Your task to perform on an android device: Who is the president of the United States? Image 0: 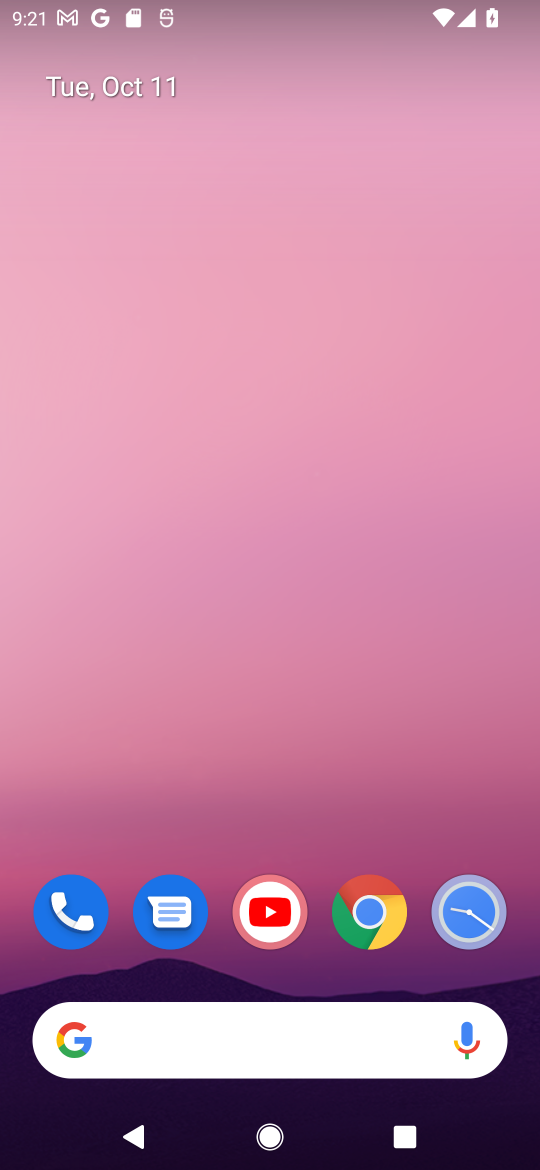
Step 0: click (370, 912)
Your task to perform on an android device: Who is the president of the United States? Image 1: 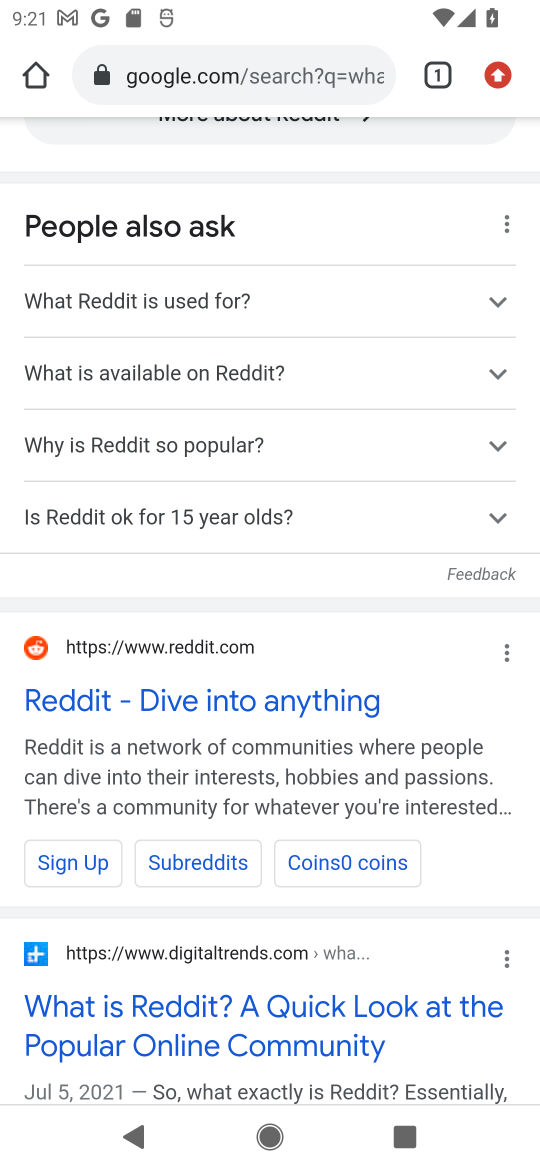
Step 1: click (227, 57)
Your task to perform on an android device: Who is the president of the United States? Image 2: 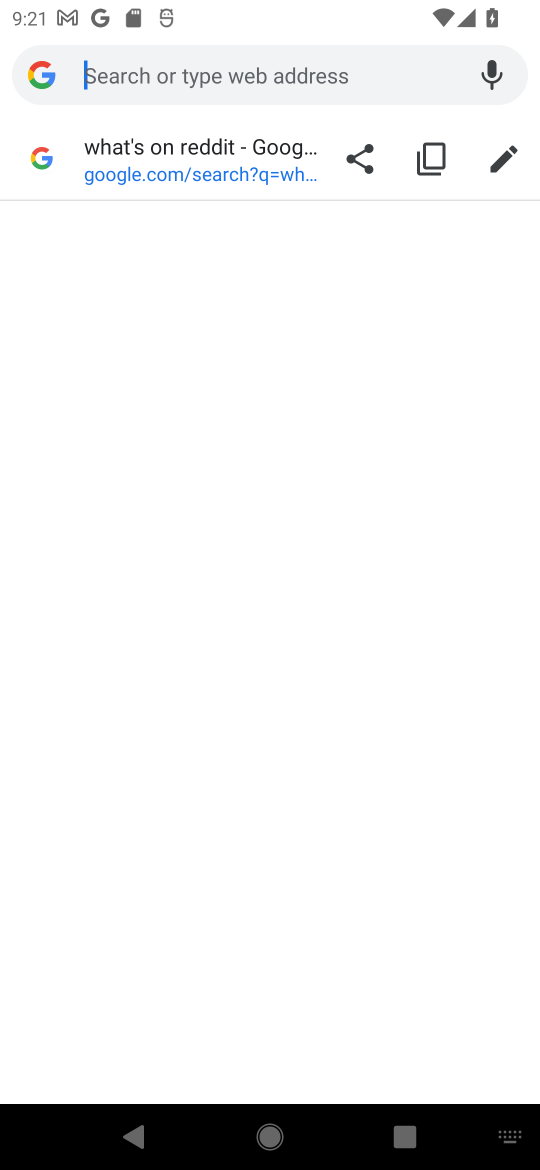
Step 2: type "president of USA"
Your task to perform on an android device: Who is the president of the United States? Image 3: 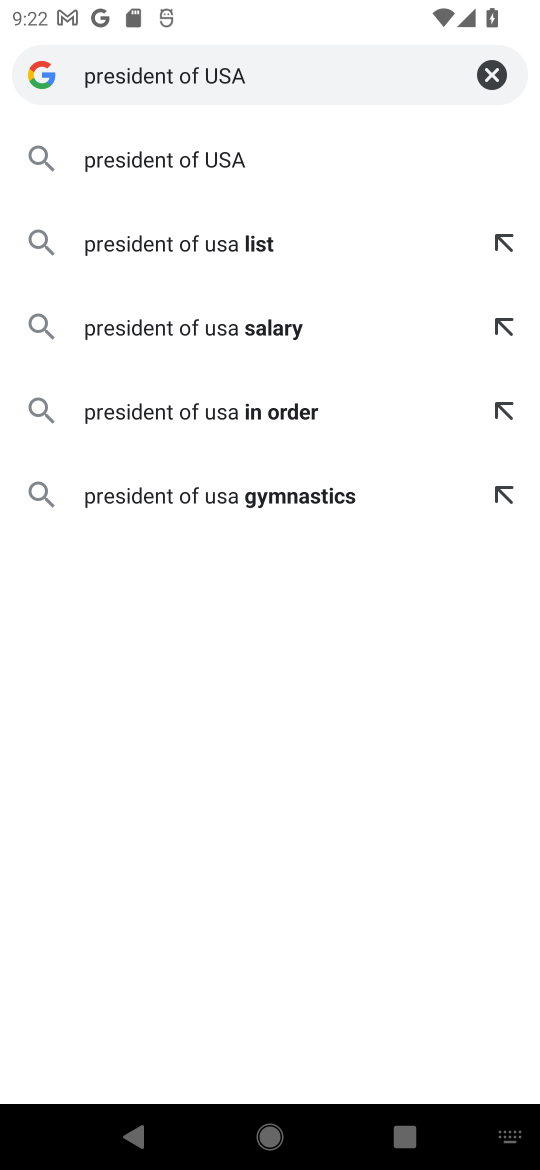
Step 3: click (181, 158)
Your task to perform on an android device: Who is the president of the United States? Image 4: 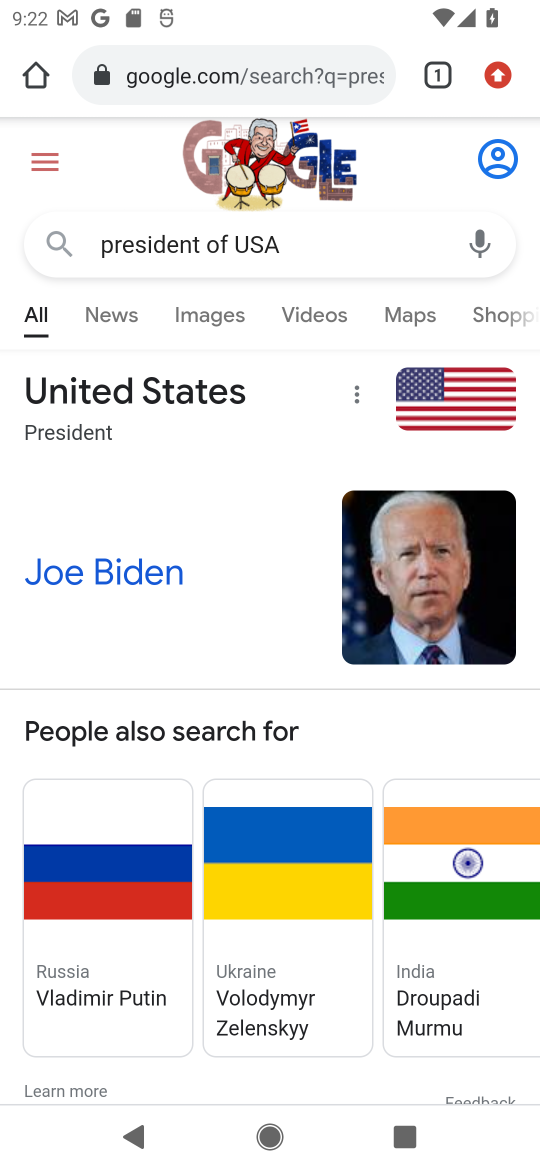
Step 4: task complete